Your task to perform on an android device: check data usage Image 0: 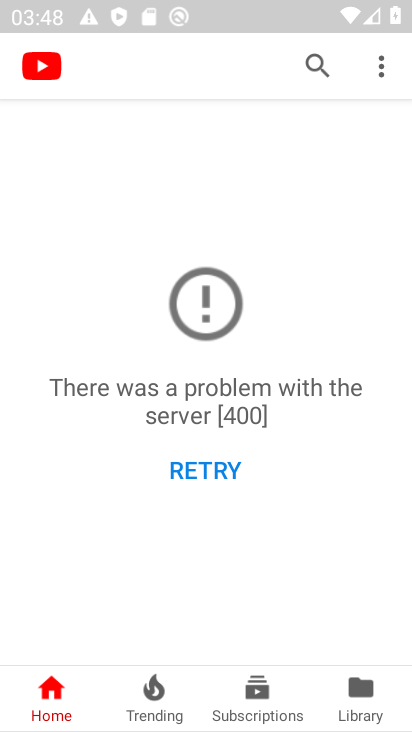
Step 0: press back button
Your task to perform on an android device: check data usage Image 1: 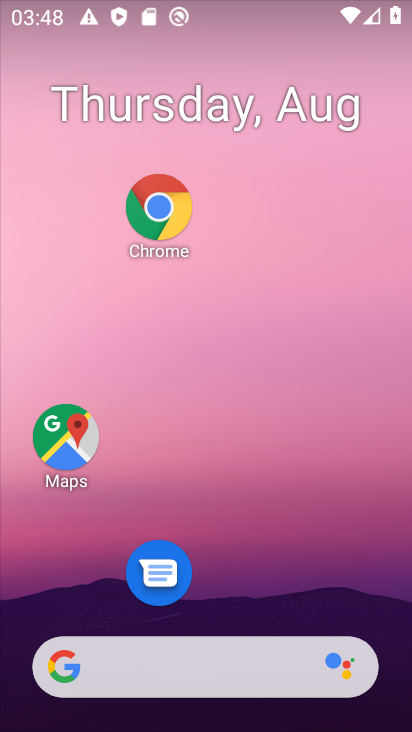
Step 1: drag from (240, 628) to (237, 113)
Your task to perform on an android device: check data usage Image 2: 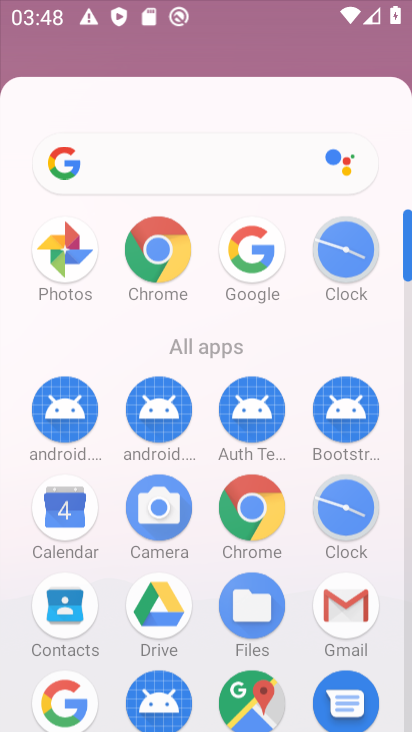
Step 2: drag from (309, 467) to (311, 173)
Your task to perform on an android device: check data usage Image 3: 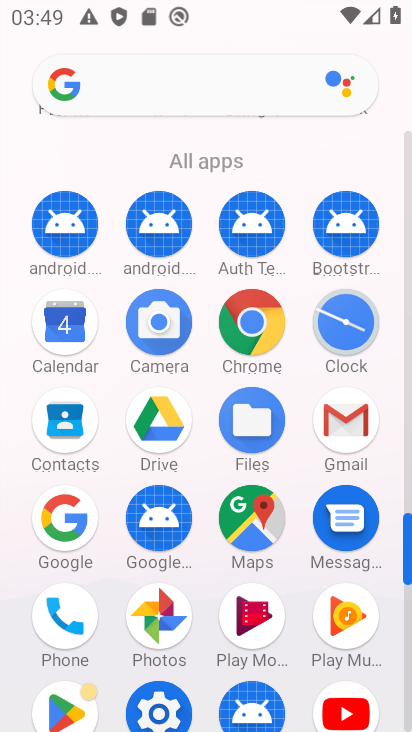
Step 3: click (161, 701)
Your task to perform on an android device: check data usage Image 4: 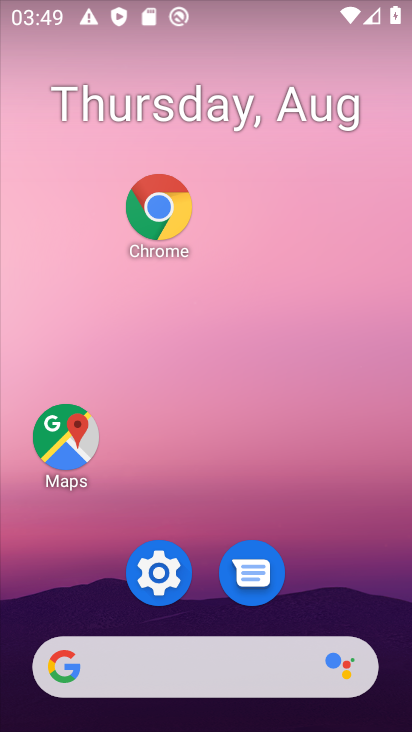
Step 4: click (158, 569)
Your task to perform on an android device: check data usage Image 5: 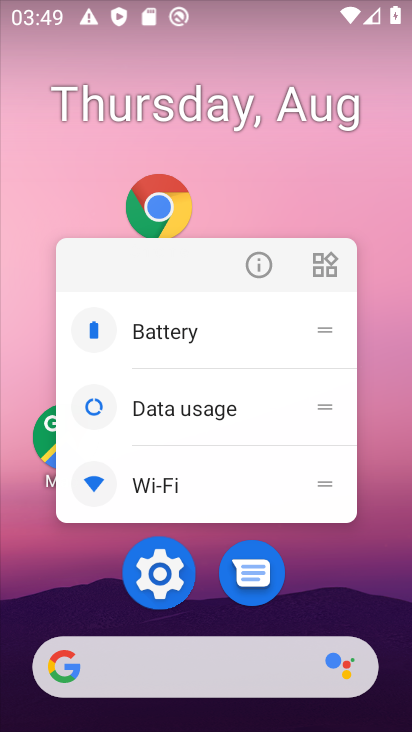
Step 5: drag from (160, 574) to (191, 412)
Your task to perform on an android device: check data usage Image 6: 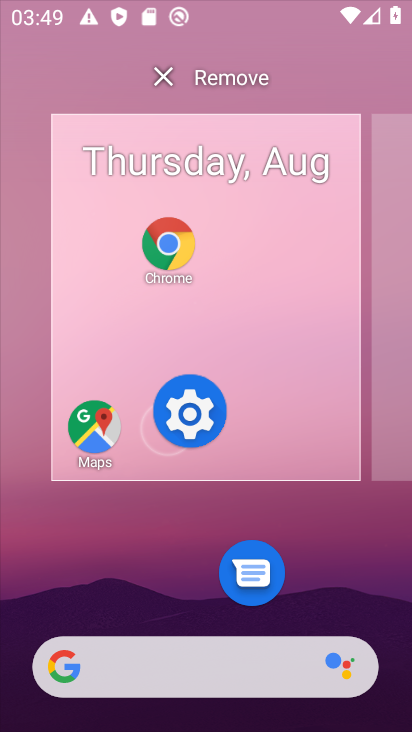
Step 6: click (191, 412)
Your task to perform on an android device: check data usage Image 7: 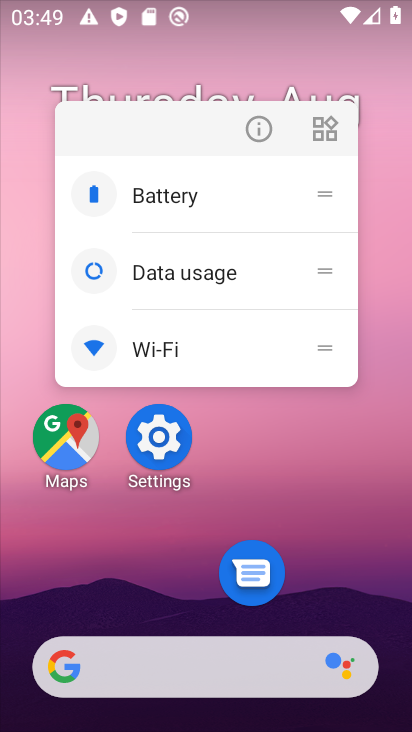
Step 7: click (188, 277)
Your task to perform on an android device: check data usage Image 8: 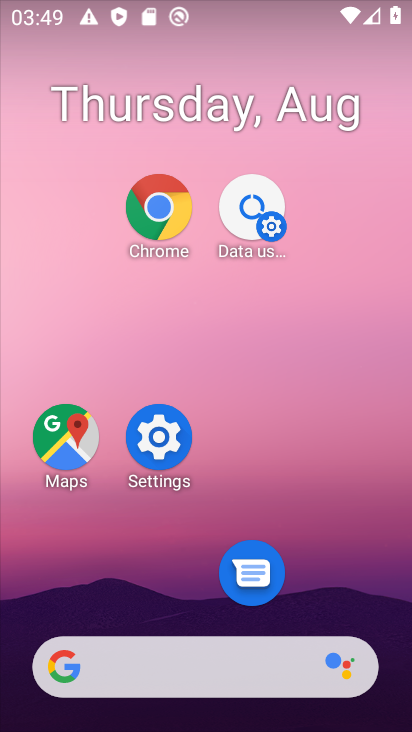
Step 8: drag from (145, 558) to (190, 196)
Your task to perform on an android device: check data usage Image 9: 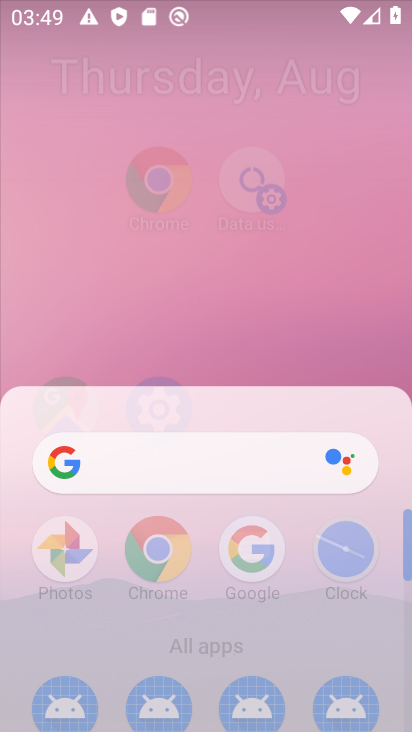
Step 9: drag from (313, 531) to (287, 280)
Your task to perform on an android device: check data usage Image 10: 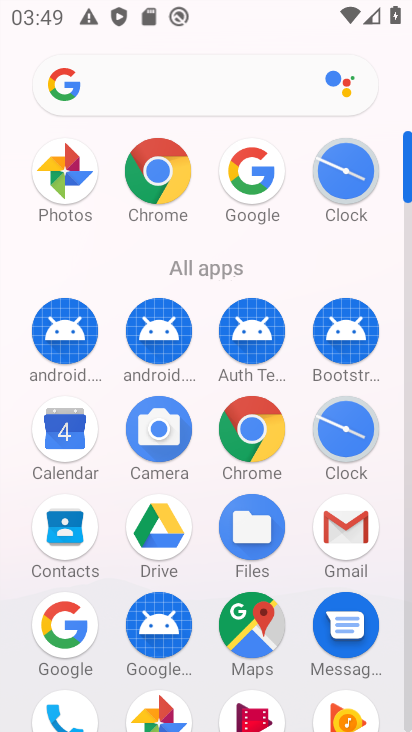
Step 10: drag from (307, 565) to (248, 202)
Your task to perform on an android device: check data usage Image 11: 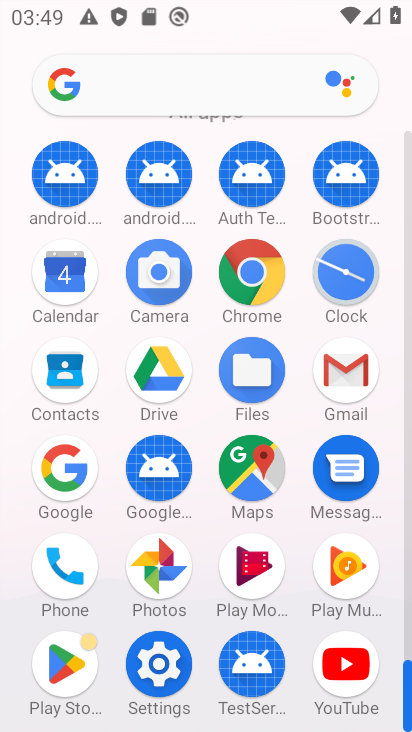
Step 11: drag from (294, 574) to (255, 236)
Your task to perform on an android device: check data usage Image 12: 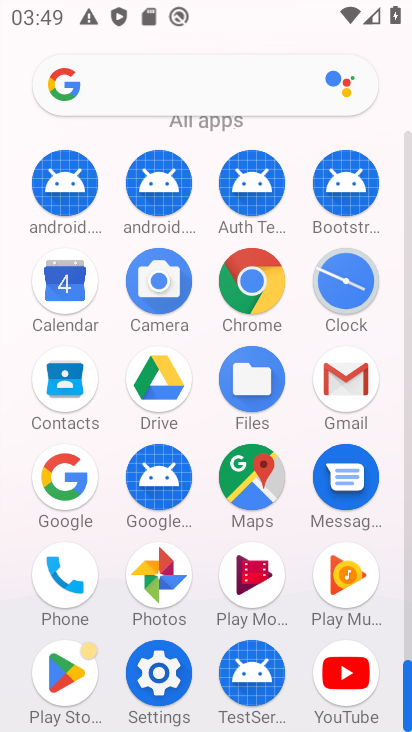
Step 12: click (165, 673)
Your task to perform on an android device: check data usage Image 13: 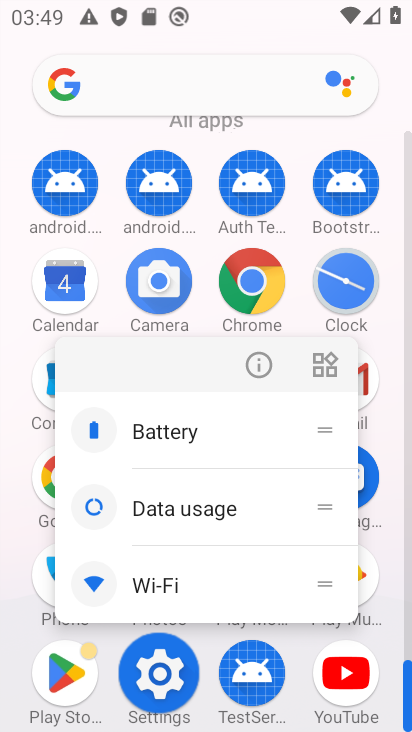
Step 13: click (161, 676)
Your task to perform on an android device: check data usage Image 14: 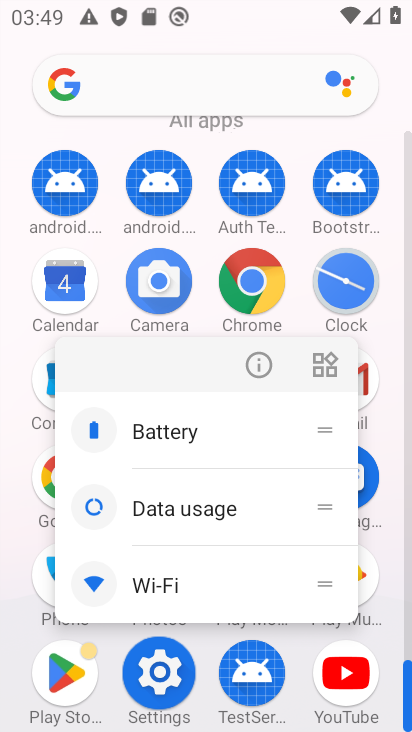
Step 14: click (161, 677)
Your task to perform on an android device: check data usage Image 15: 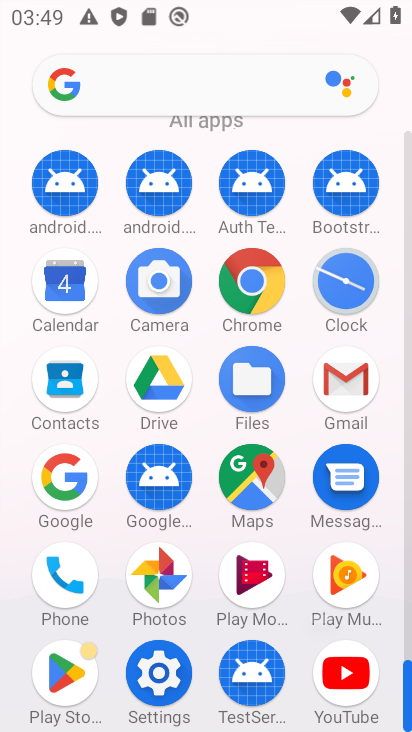
Step 15: click (161, 677)
Your task to perform on an android device: check data usage Image 16: 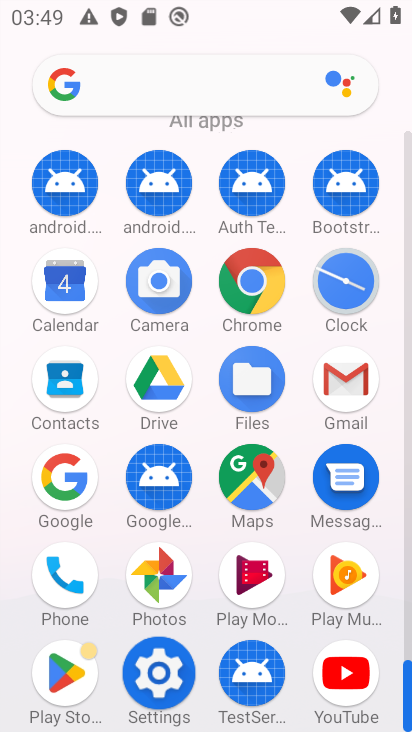
Step 16: click (160, 678)
Your task to perform on an android device: check data usage Image 17: 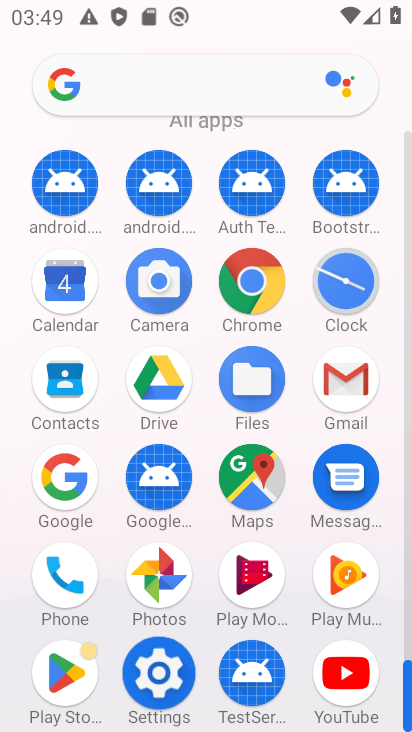
Step 17: click (159, 677)
Your task to perform on an android device: check data usage Image 18: 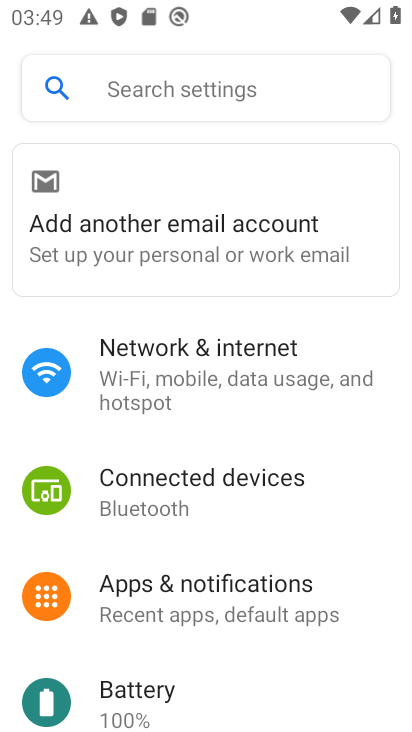
Step 18: click (168, 361)
Your task to perform on an android device: check data usage Image 19: 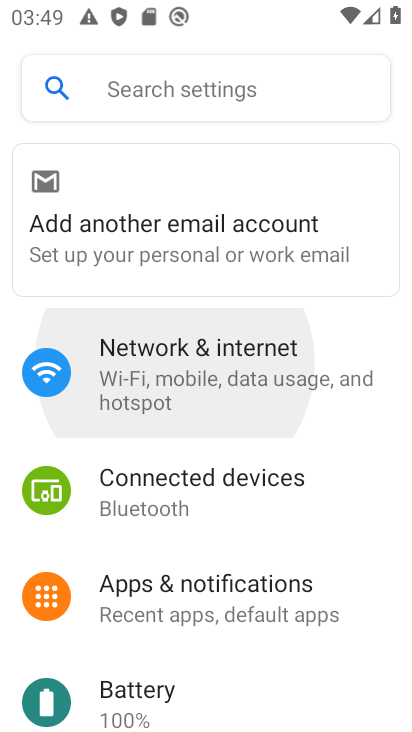
Step 19: click (168, 361)
Your task to perform on an android device: check data usage Image 20: 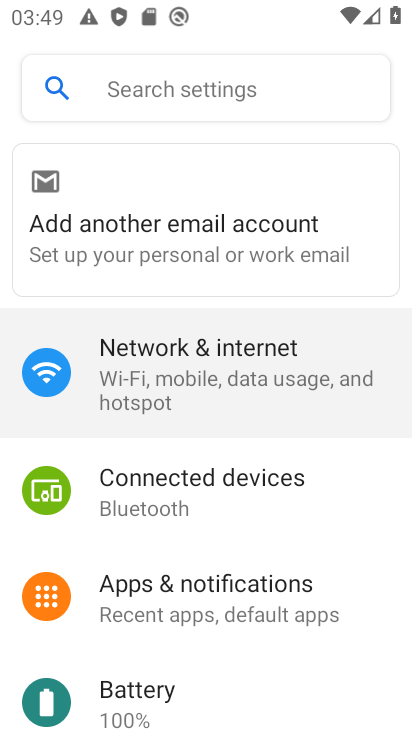
Step 20: click (168, 361)
Your task to perform on an android device: check data usage Image 21: 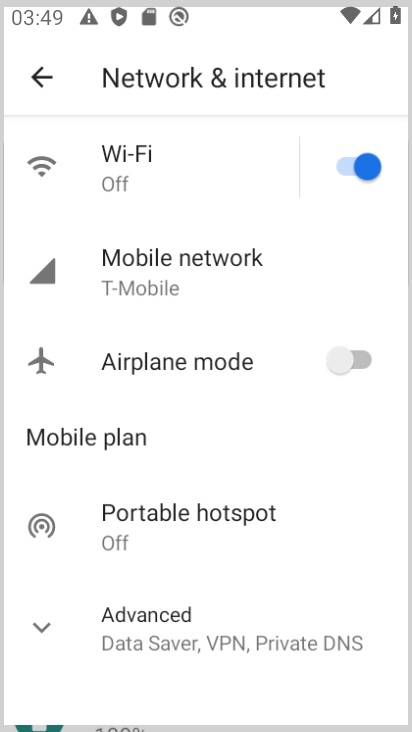
Step 21: click (160, 347)
Your task to perform on an android device: check data usage Image 22: 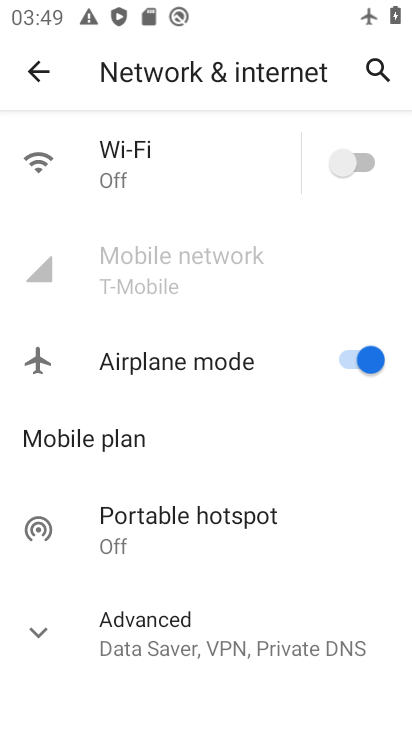
Step 22: task complete